Your task to perform on an android device: change keyboard looks Image 0: 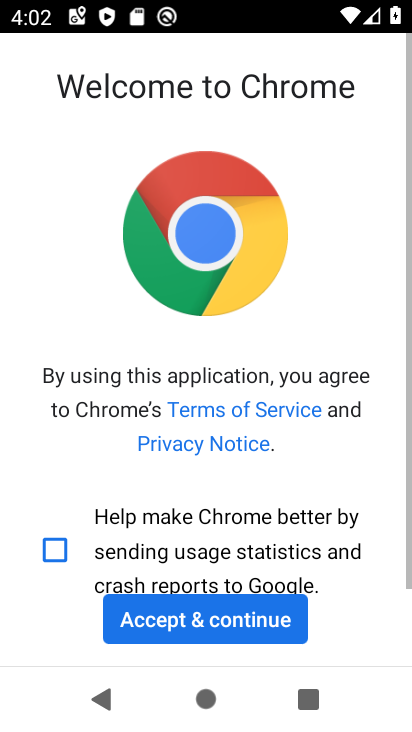
Step 0: press home button
Your task to perform on an android device: change keyboard looks Image 1: 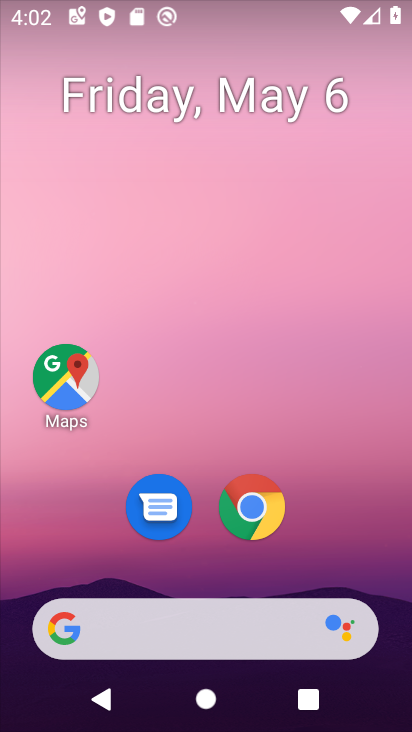
Step 1: drag from (332, 499) to (200, 72)
Your task to perform on an android device: change keyboard looks Image 2: 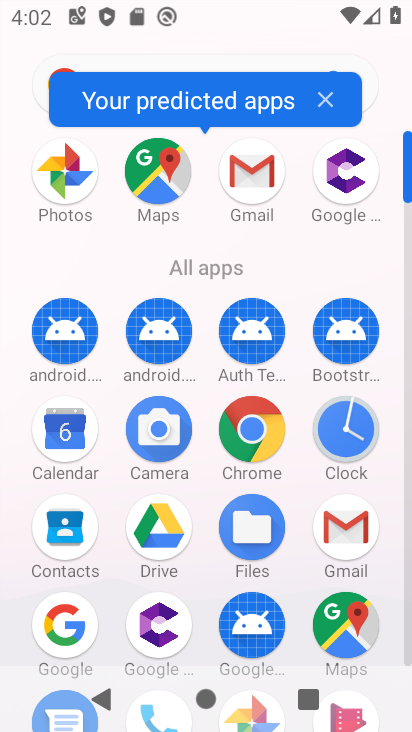
Step 2: drag from (214, 537) to (136, 233)
Your task to perform on an android device: change keyboard looks Image 3: 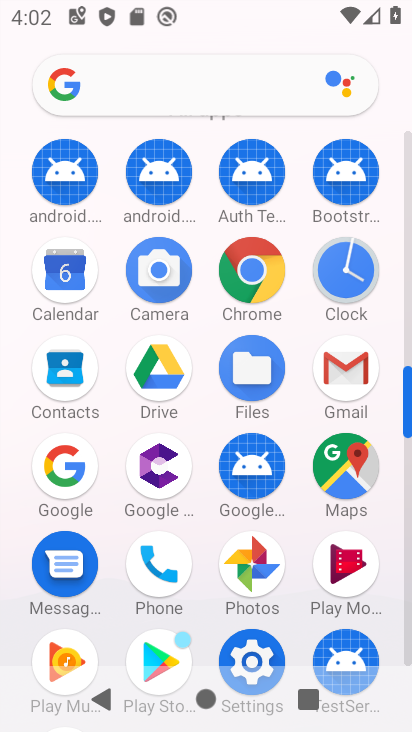
Step 3: click (243, 639)
Your task to perform on an android device: change keyboard looks Image 4: 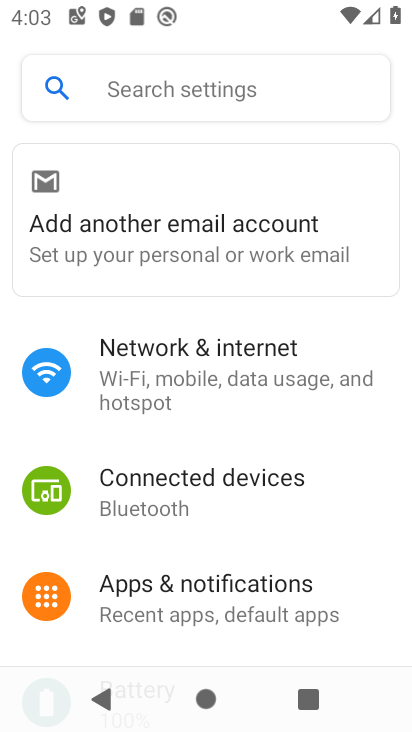
Step 4: drag from (183, 524) to (155, 216)
Your task to perform on an android device: change keyboard looks Image 5: 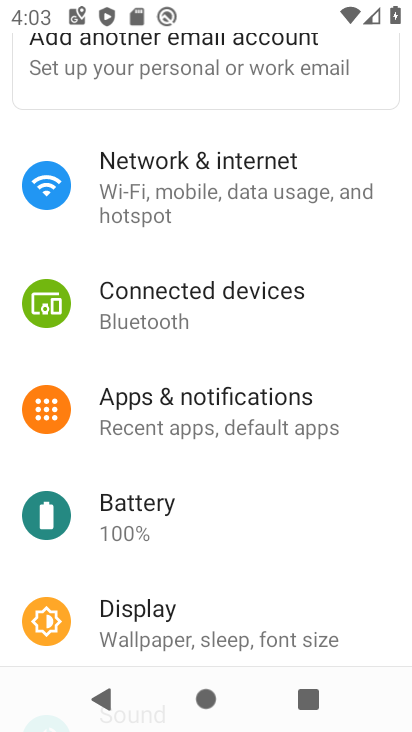
Step 5: drag from (169, 556) to (101, 239)
Your task to perform on an android device: change keyboard looks Image 6: 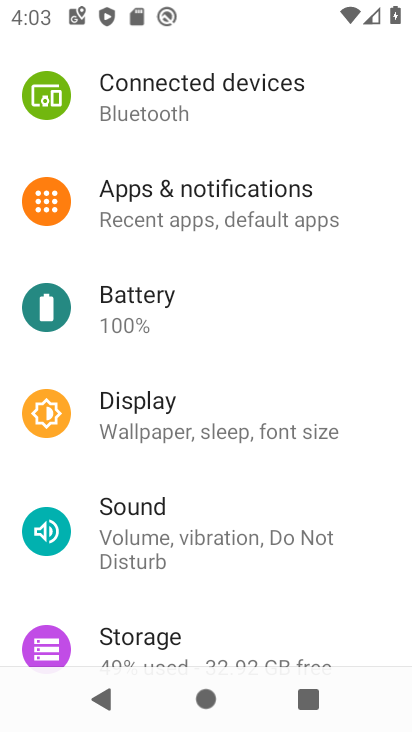
Step 6: drag from (164, 462) to (129, 120)
Your task to perform on an android device: change keyboard looks Image 7: 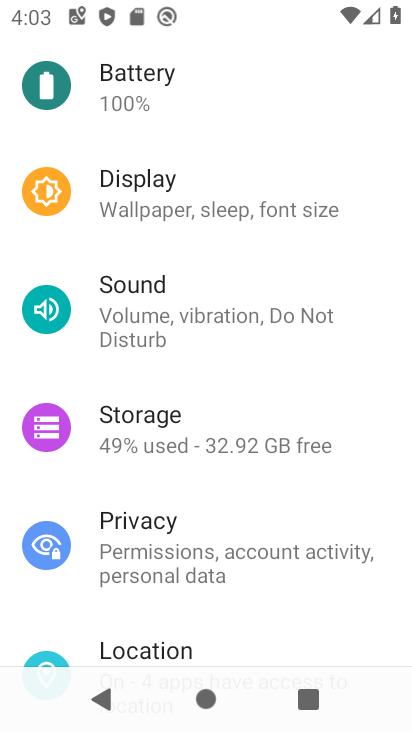
Step 7: drag from (155, 477) to (102, 167)
Your task to perform on an android device: change keyboard looks Image 8: 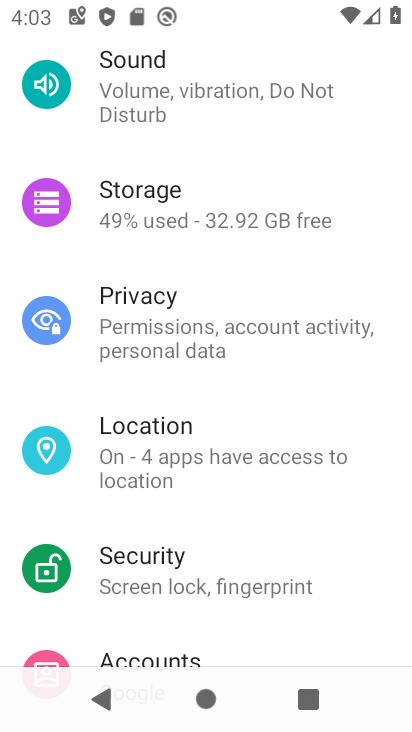
Step 8: drag from (186, 510) to (194, 186)
Your task to perform on an android device: change keyboard looks Image 9: 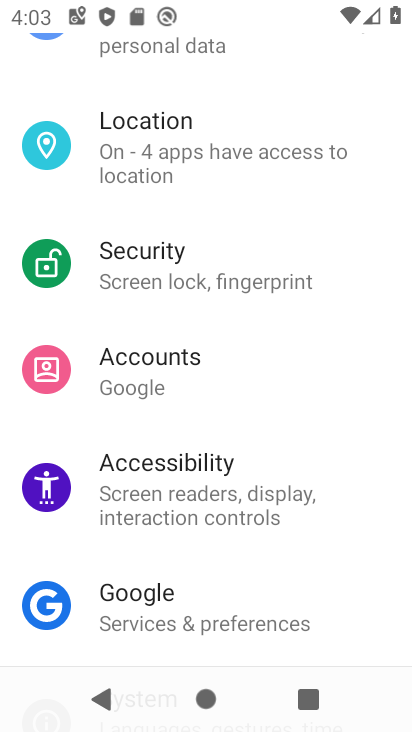
Step 9: drag from (168, 546) to (155, 131)
Your task to perform on an android device: change keyboard looks Image 10: 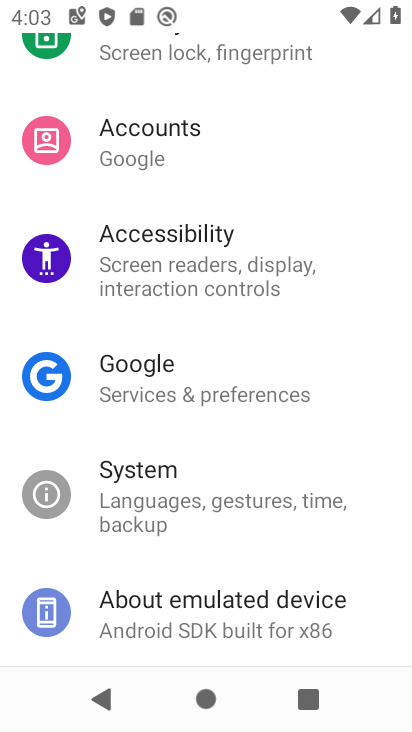
Step 10: click (145, 473)
Your task to perform on an android device: change keyboard looks Image 11: 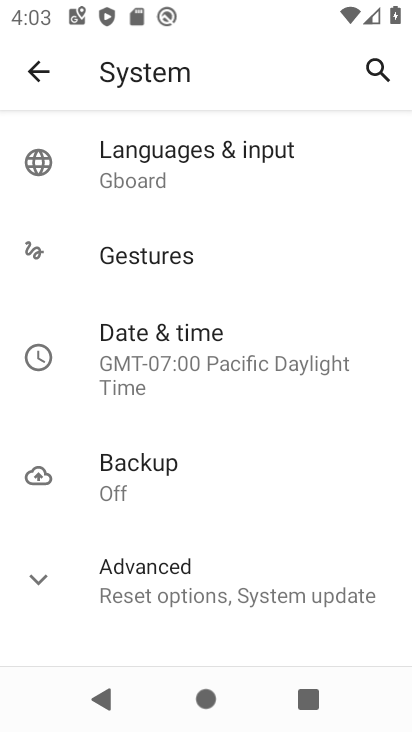
Step 11: click (160, 152)
Your task to perform on an android device: change keyboard looks Image 12: 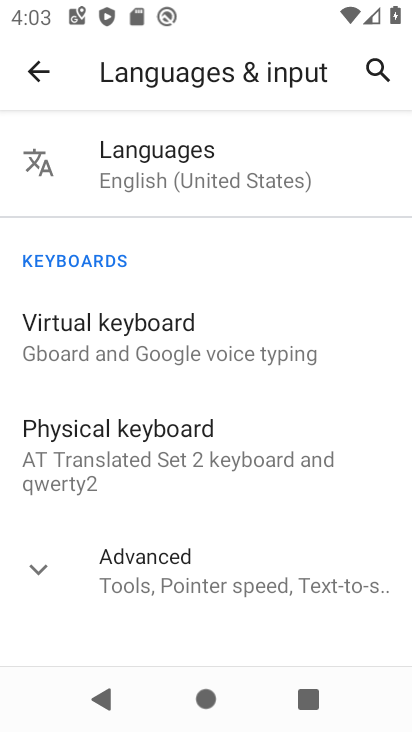
Step 12: click (113, 335)
Your task to perform on an android device: change keyboard looks Image 13: 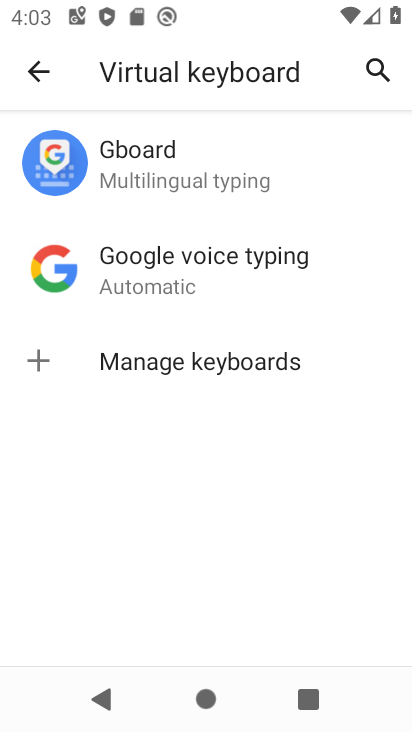
Step 13: click (145, 163)
Your task to perform on an android device: change keyboard looks Image 14: 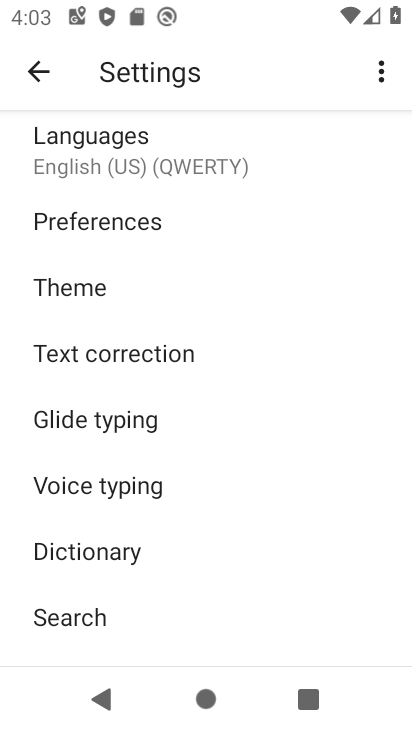
Step 14: click (75, 284)
Your task to perform on an android device: change keyboard looks Image 15: 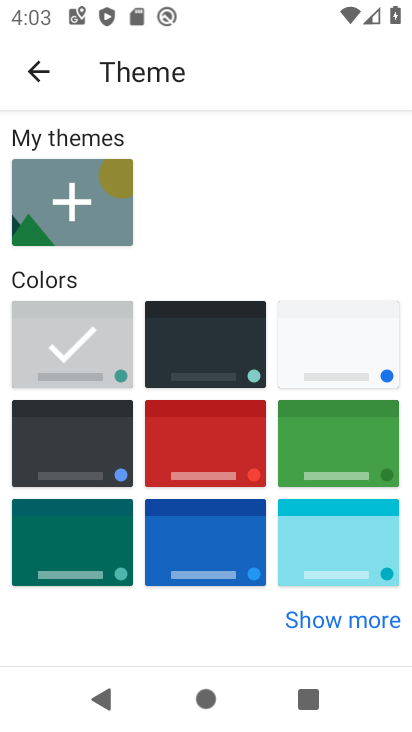
Step 15: click (210, 453)
Your task to perform on an android device: change keyboard looks Image 16: 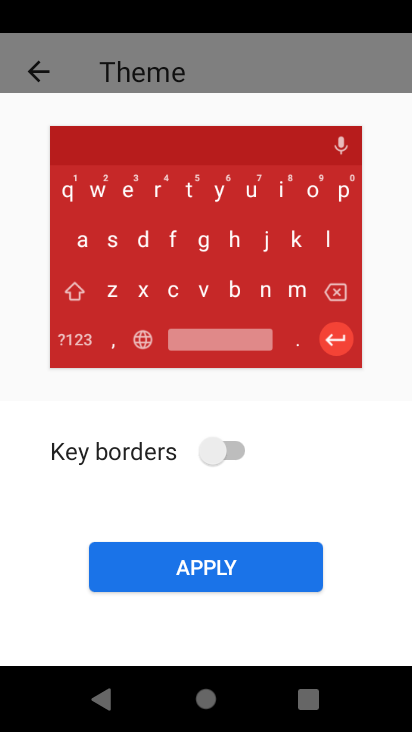
Step 16: click (278, 567)
Your task to perform on an android device: change keyboard looks Image 17: 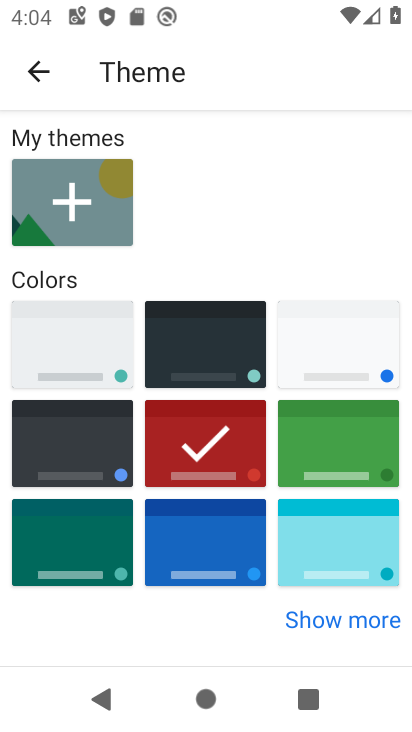
Step 17: task complete